Your task to perform on an android device: Open Google Chrome and open the bookmarks view Image 0: 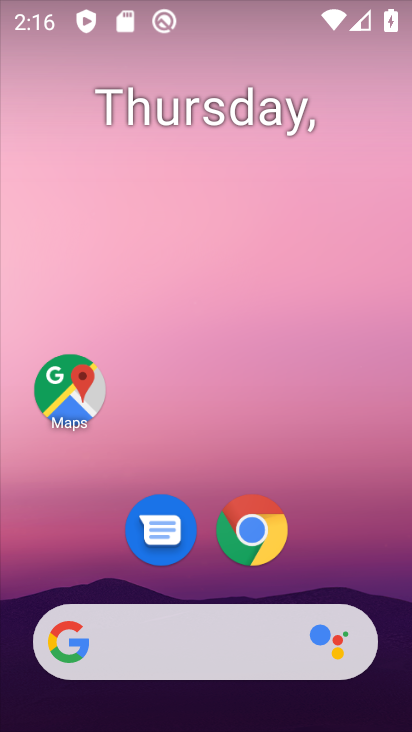
Step 0: click (247, 546)
Your task to perform on an android device: Open Google Chrome and open the bookmarks view Image 1: 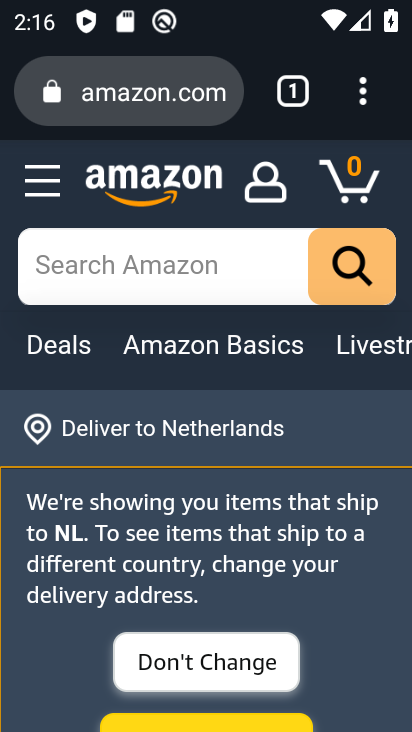
Step 1: click (376, 102)
Your task to perform on an android device: Open Google Chrome and open the bookmarks view Image 2: 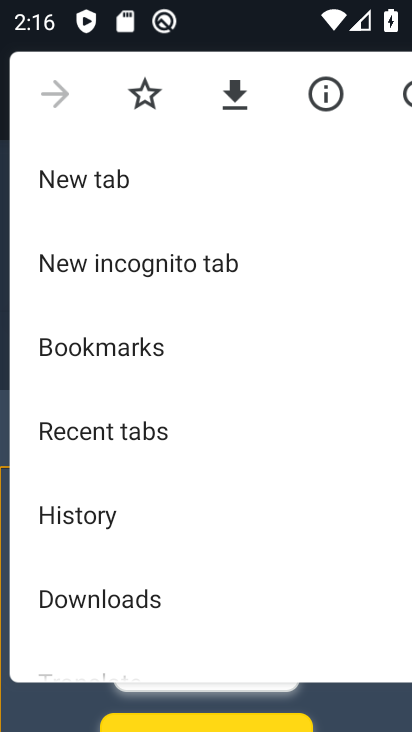
Step 2: click (160, 348)
Your task to perform on an android device: Open Google Chrome and open the bookmarks view Image 3: 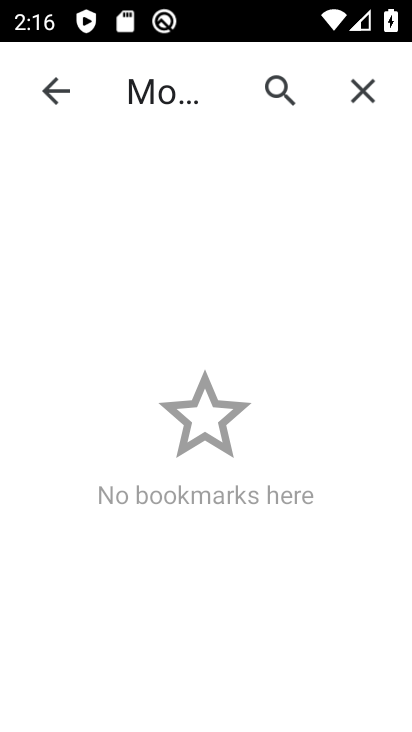
Step 3: task complete